Your task to perform on an android device: Go to battery settings Image 0: 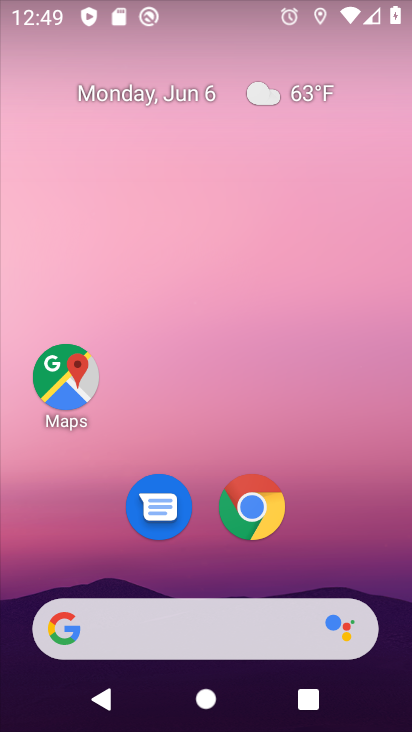
Step 0: click (59, 378)
Your task to perform on an android device: Go to battery settings Image 1: 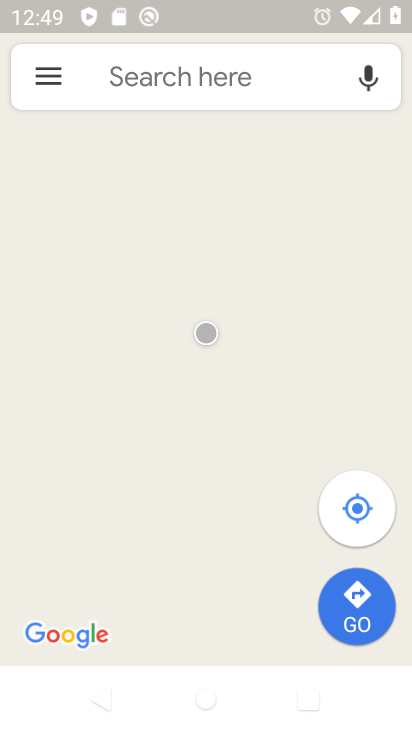
Step 1: press home button
Your task to perform on an android device: Go to battery settings Image 2: 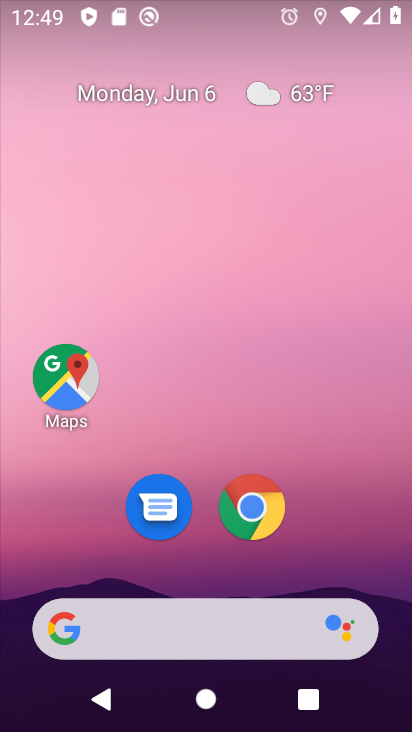
Step 2: drag from (220, 424) to (202, 10)
Your task to perform on an android device: Go to battery settings Image 3: 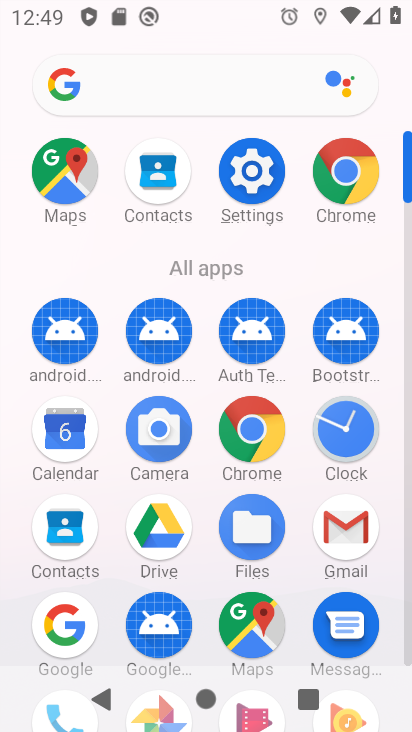
Step 3: click (256, 169)
Your task to perform on an android device: Go to battery settings Image 4: 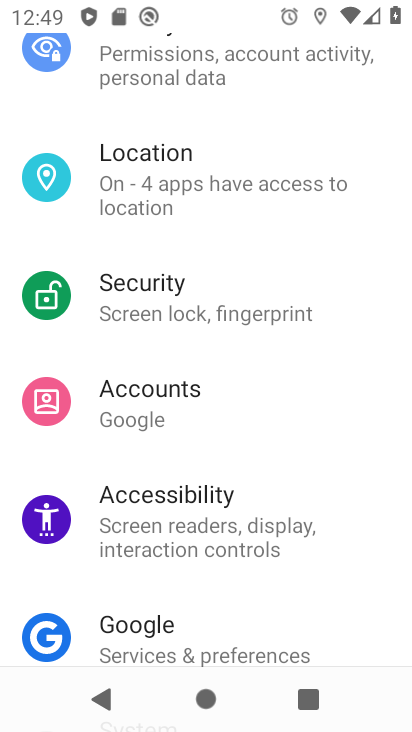
Step 4: drag from (236, 220) to (266, 547)
Your task to perform on an android device: Go to battery settings Image 5: 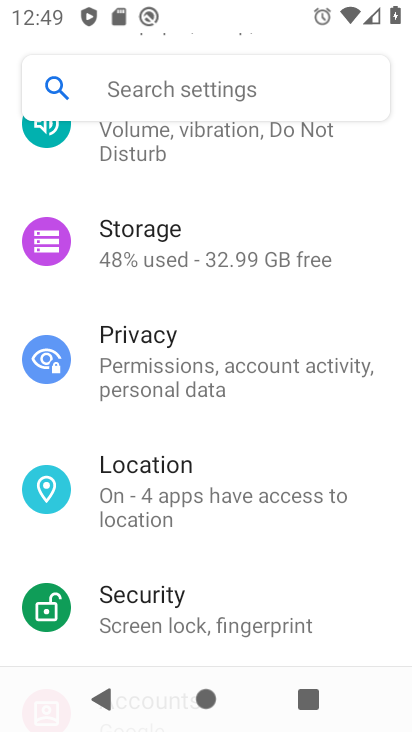
Step 5: drag from (261, 250) to (249, 593)
Your task to perform on an android device: Go to battery settings Image 6: 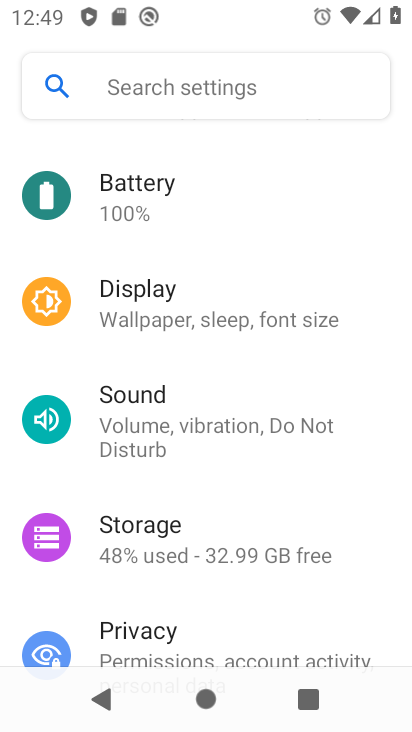
Step 6: click (188, 192)
Your task to perform on an android device: Go to battery settings Image 7: 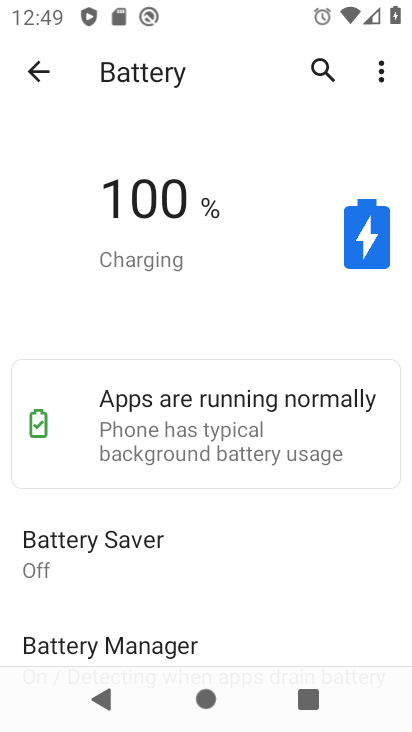
Step 7: task complete